Your task to perform on an android device: Open location settings Image 0: 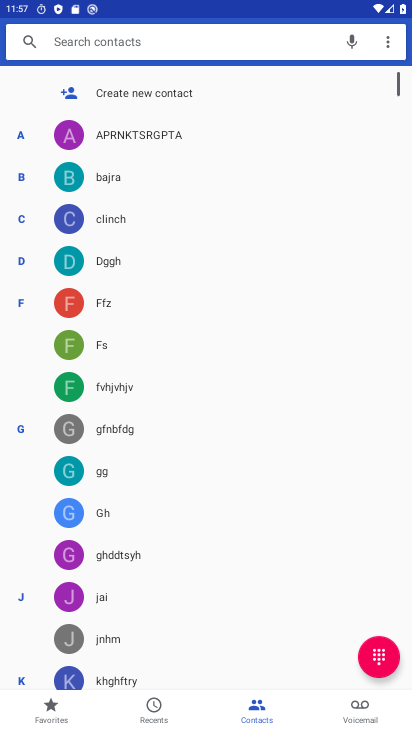
Step 0: press home button
Your task to perform on an android device: Open location settings Image 1: 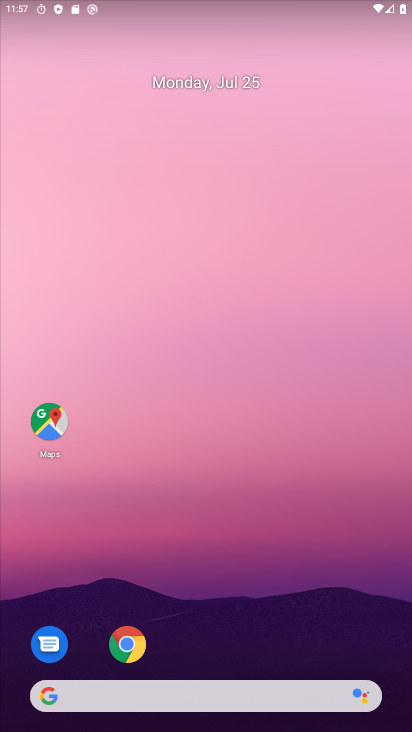
Step 1: drag from (244, 637) to (125, 18)
Your task to perform on an android device: Open location settings Image 2: 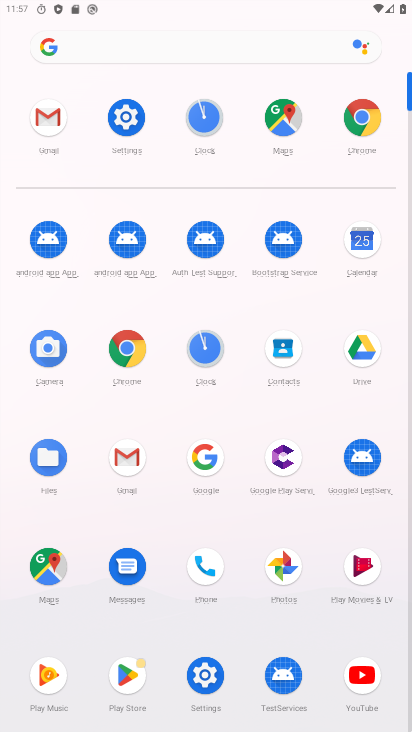
Step 2: click (119, 129)
Your task to perform on an android device: Open location settings Image 3: 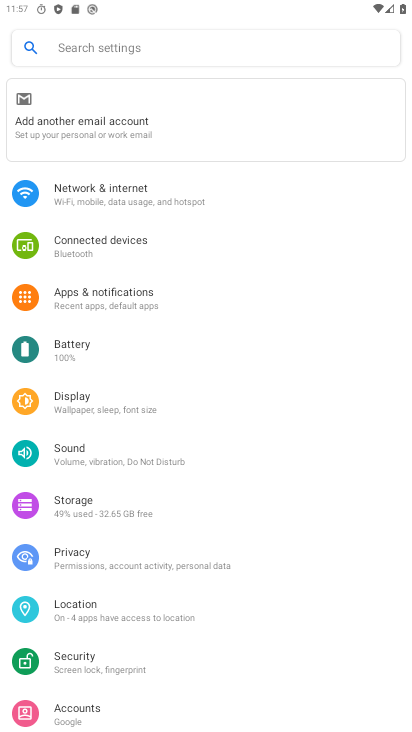
Step 3: click (101, 612)
Your task to perform on an android device: Open location settings Image 4: 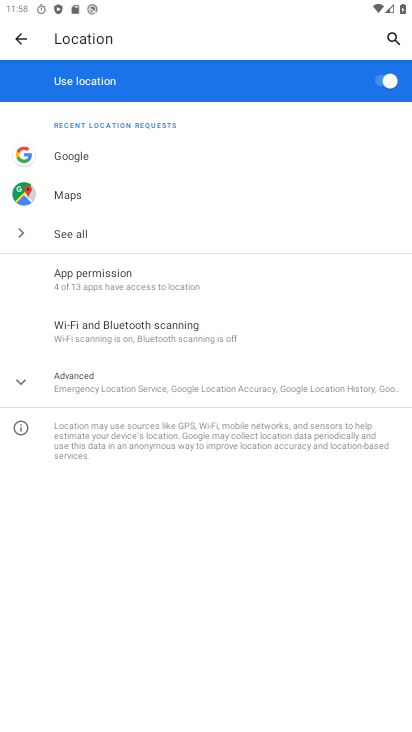
Step 4: task complete